Your task to perform on an android device: find snoozed emails in the gmail app Image 0: 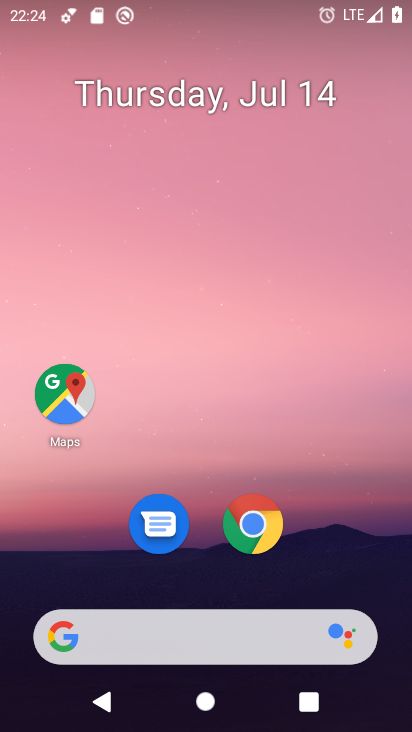
Step 0: drag from (261, 434) to (307, 9)
Your task to perform on an android device: find snoozed emails in the gmail app Image 1: 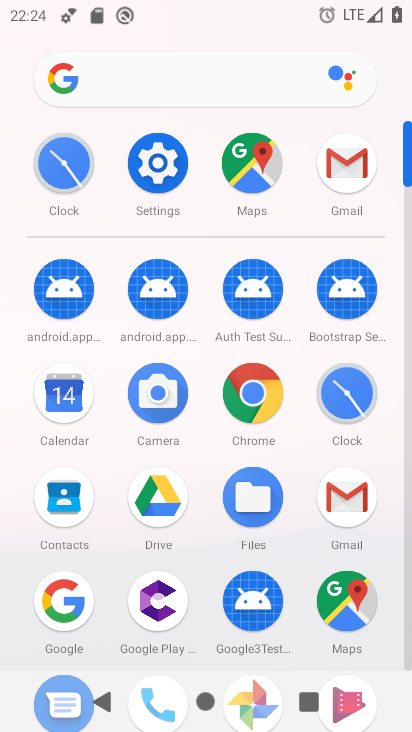
Step 1: click (352, 168)
Your task to perform on an android device: find snoozed emails in the gmail app Image 2: 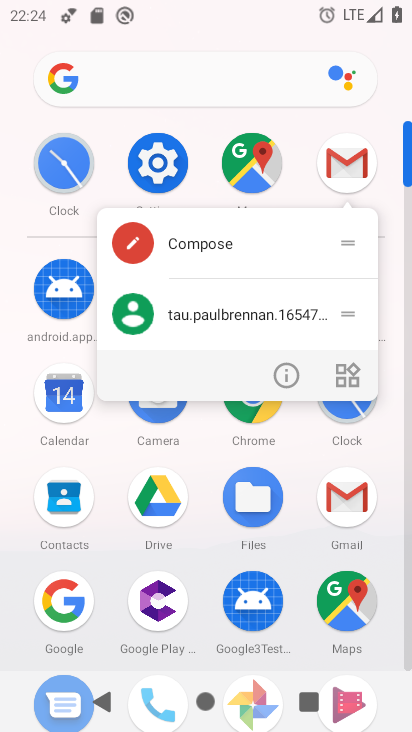
Step 2: click (352, 168)
Your task to perform on an android device: find snoozed emails in the gmail app Image 3: 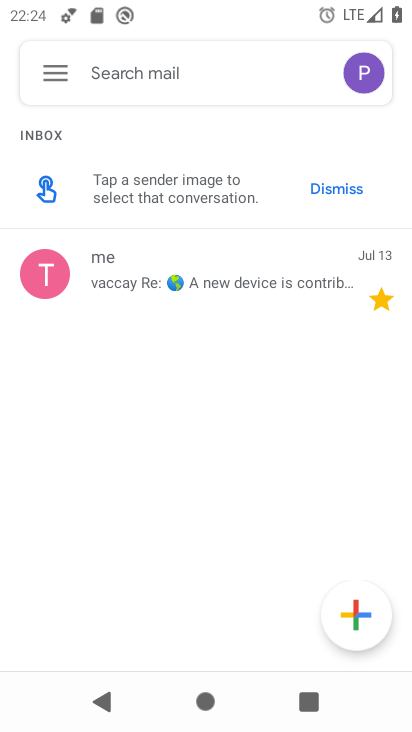
Step 3: click (58, 72)
Your task to perform on an android device: find snoozed emails in the gmail app Image 4: 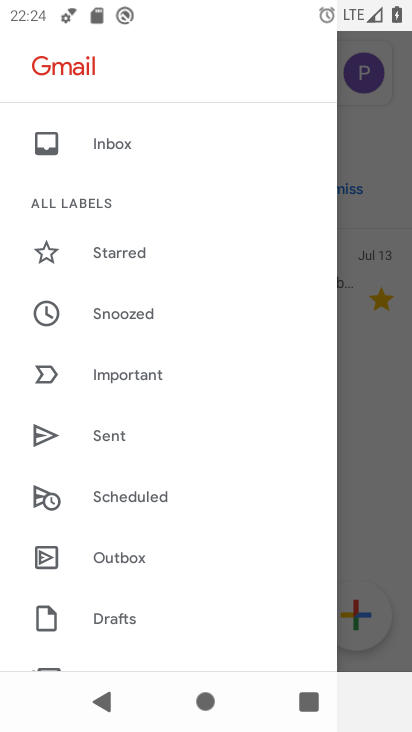
Step 4: click (106, 311)
Your task to perform on an android device: find snoozed emails in the gmail app Image 5: 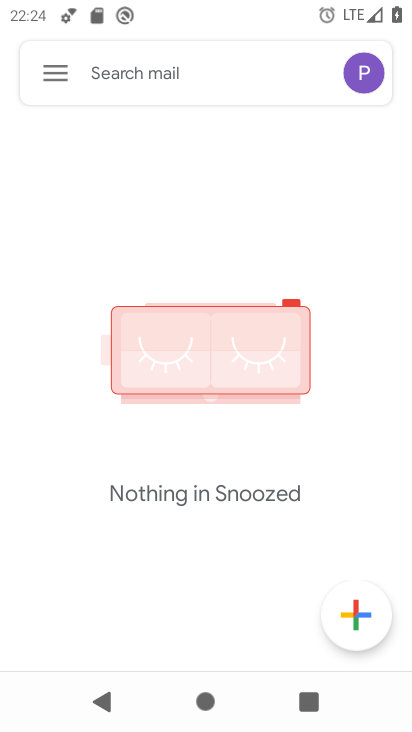
Step 5: task complete